Your task to perform on an android device: change notifications settings Image 0: 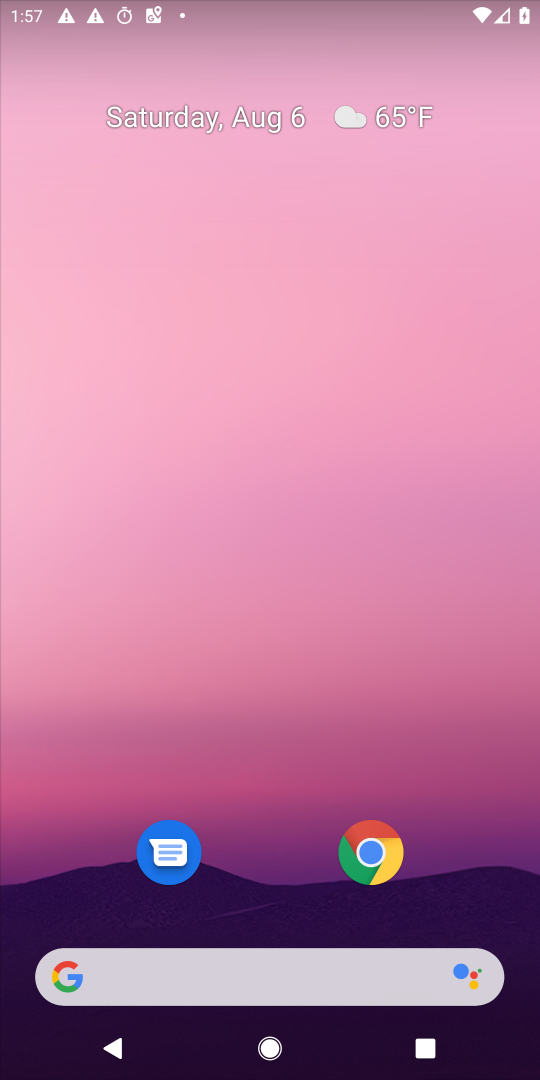
Step 0: drag from (401, 992) to (474, 460)
Your task to perform on an android device: change notifications settings Image 1: 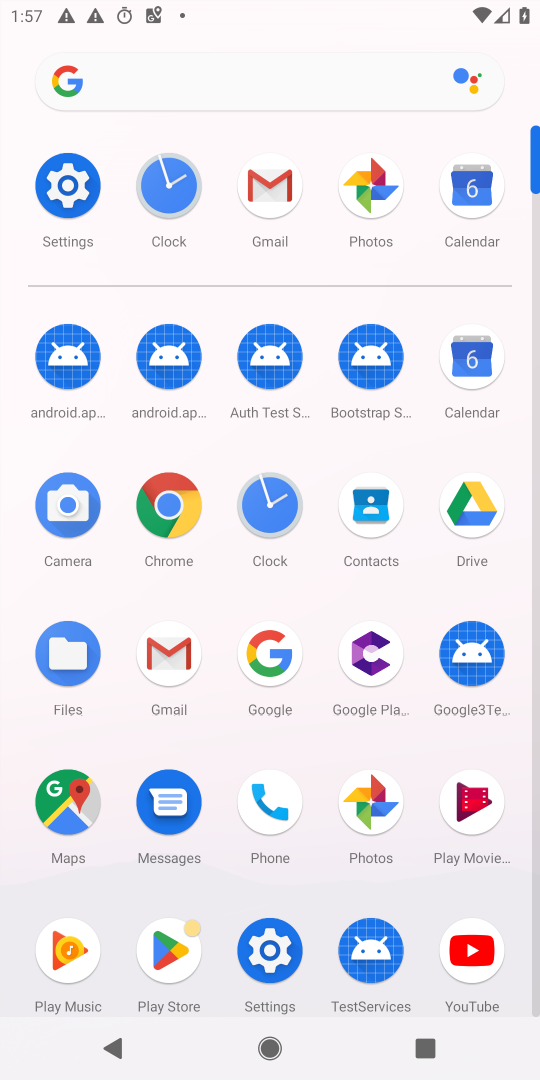
Step 1: click (78, 202)
Your task to perform on an android device: change notifications settings Image 2: 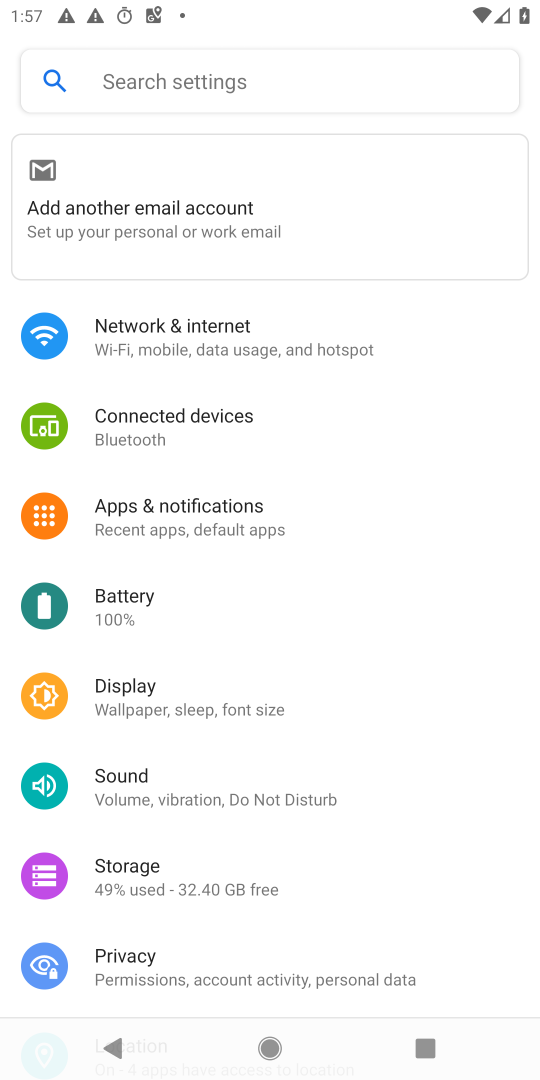
Step 2: click (189, 84)
Your task to perform on an android device: change notifications settings Image 3: 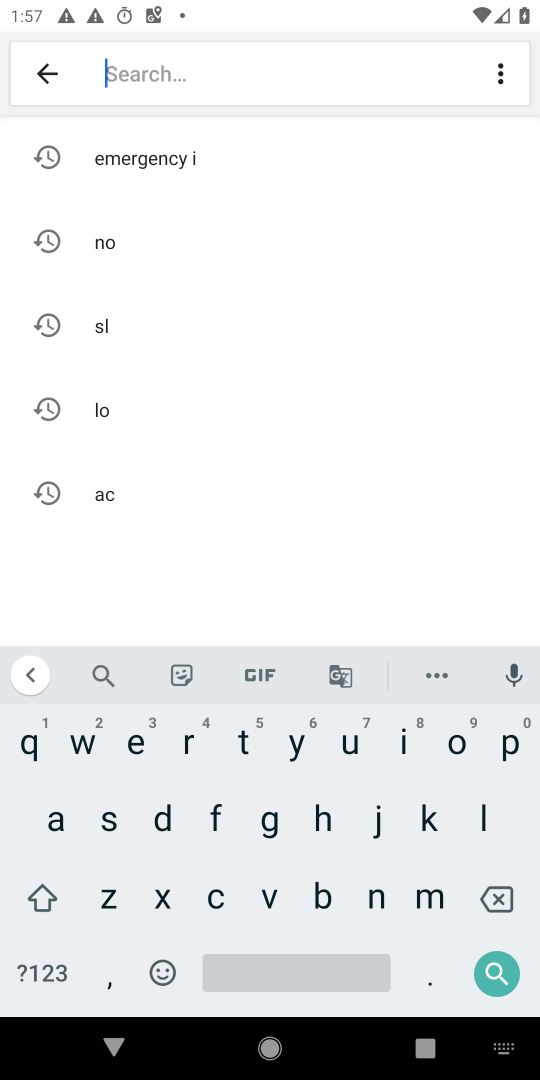
Step 3: click (156, 254)
Your task to perform on an android device: change notifications settings Image 4: 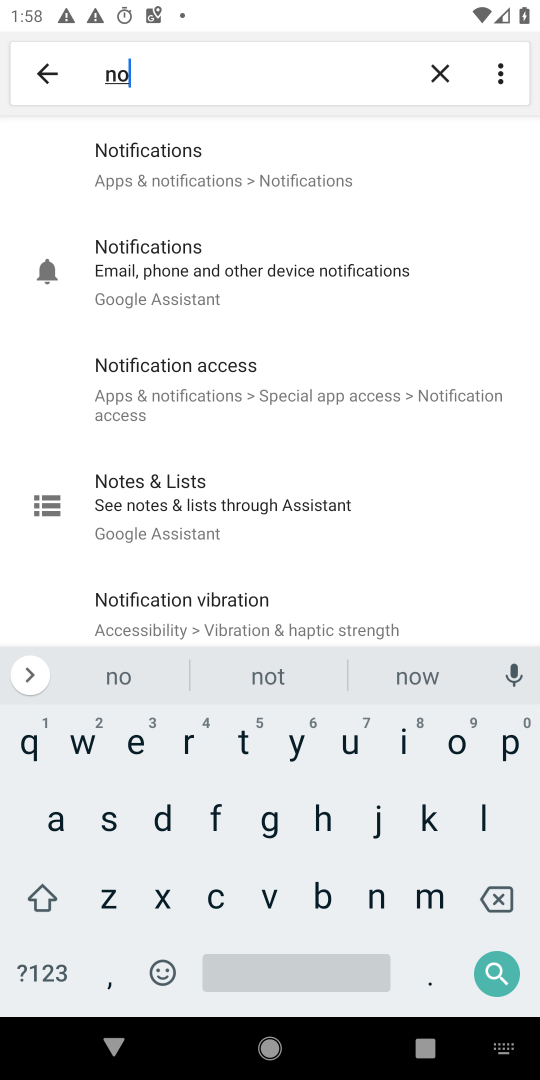
Step 4: click (156, 154)
Your task to perform on an android device: change notifications settings Image 5: 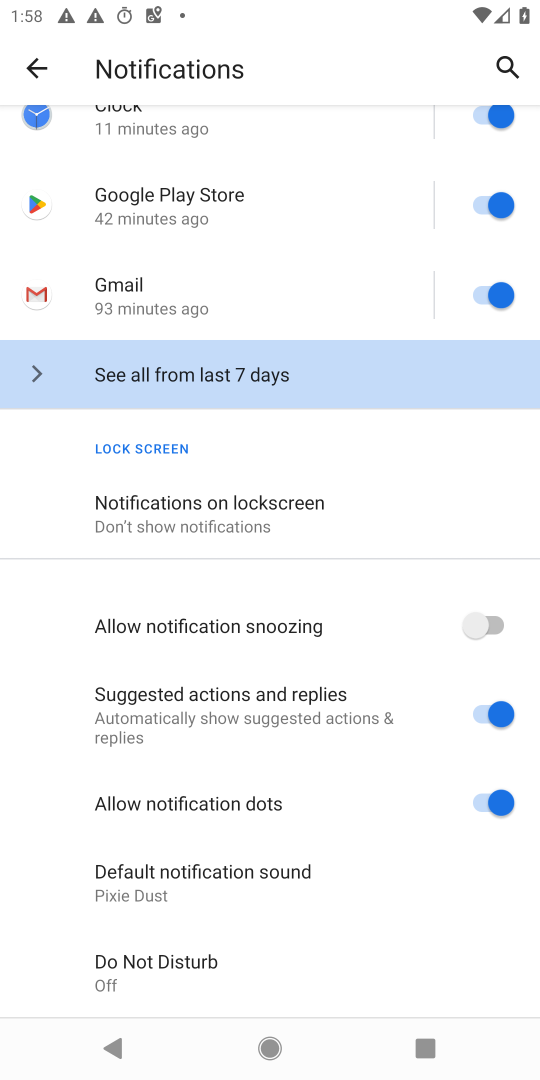
Step 5: click (131, 526)
Your task to perform on an android device: change notifications settings Image 6: 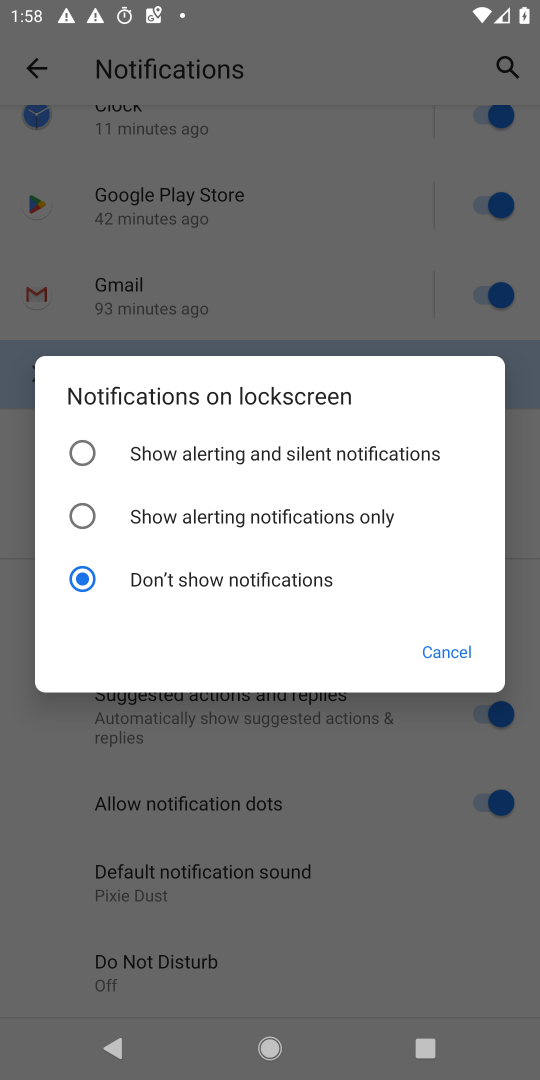
Step 6: click (158, 454)
Your task to perform on an android device: change notifications settings Image 7: 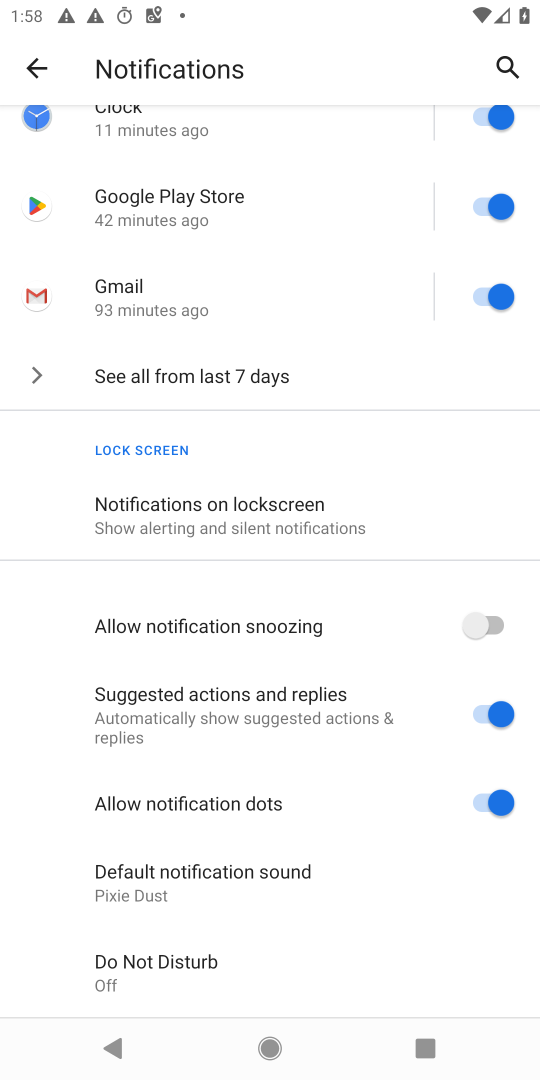
Step 7: click (189, 523)
Your task to perform on an android device: change notifications settings Image 8: 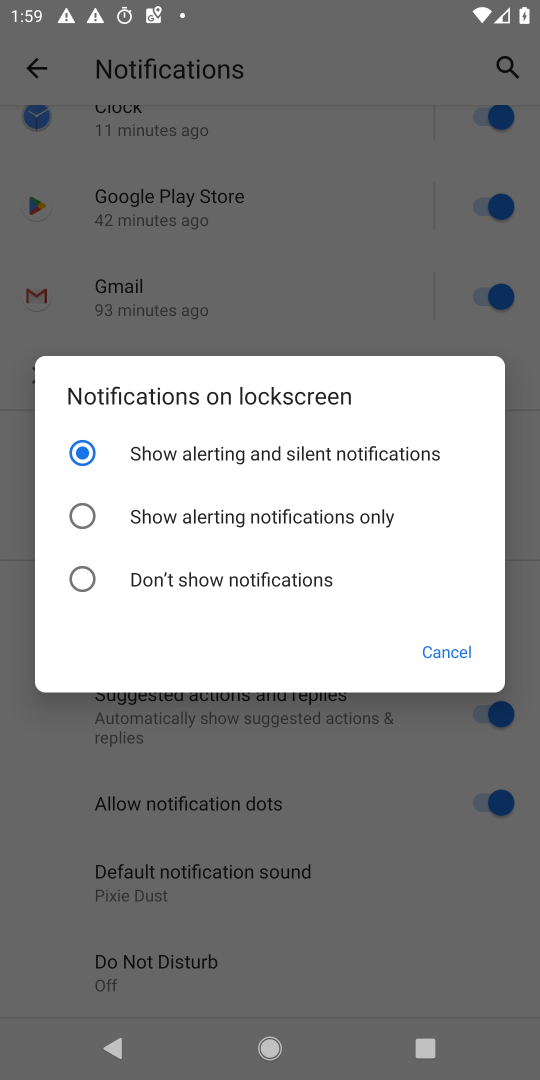
Step 8: task complete